Your task to perform on an android device: Search for Mexican restaurants on Maps Image 0: 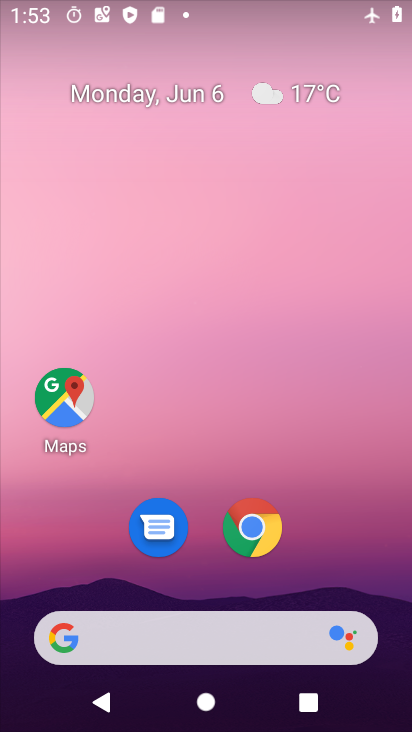
Step 0: drag from (234, 723) to (229, 36)
Your task to perform on an android device: Search for Mexican restaurants on Maps Image 1: 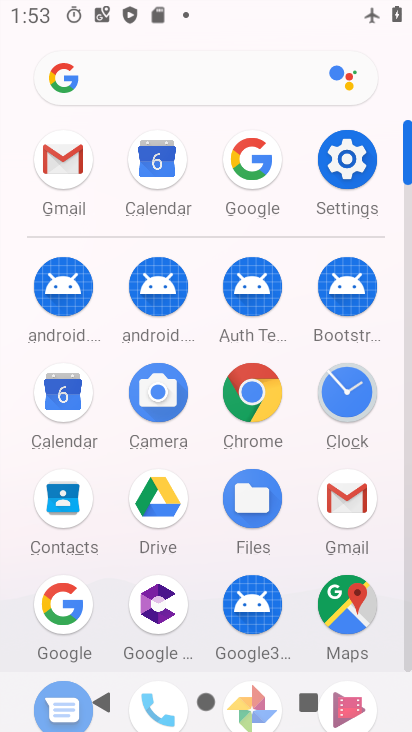
Step 1: click (353, 609)
Your task to perform on an android device: Search for Mexican restaurants on Maps Image 2: 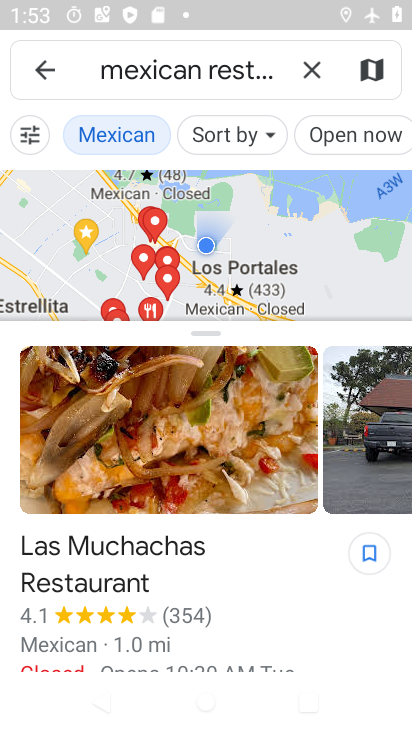
Step 2: task complete